Your task to perform on an android device: Open the stopwatch Image 0: 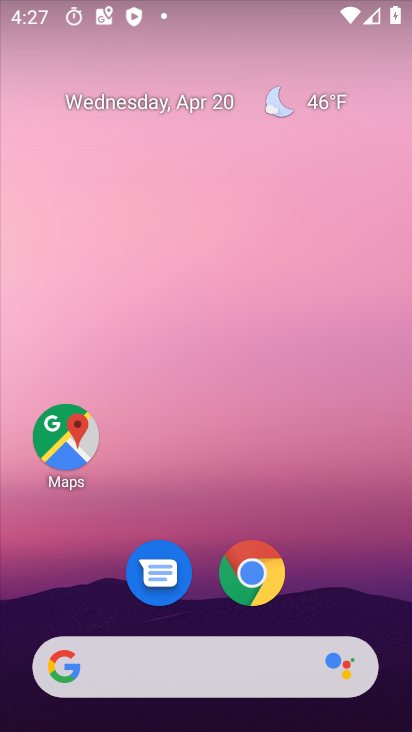
Step 0: drag from (300, 316) to (286, 222)
Your task to perform on an android device: Open the stopwatch Image 1: 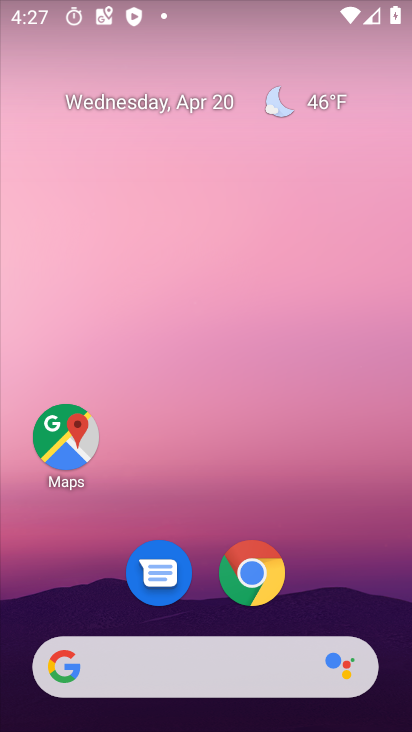
Step 1: drag from (356, 482) to (337, 256)
Your task to perform on an android device: Open the stopwatch Image 2: 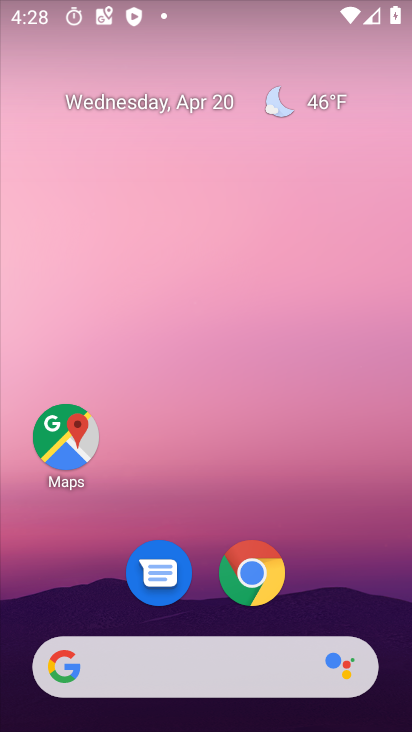
Step 2: drag from (336, 370) to (306, 162)
Your task to perform on an android device: Open the stopwatch Image 3: 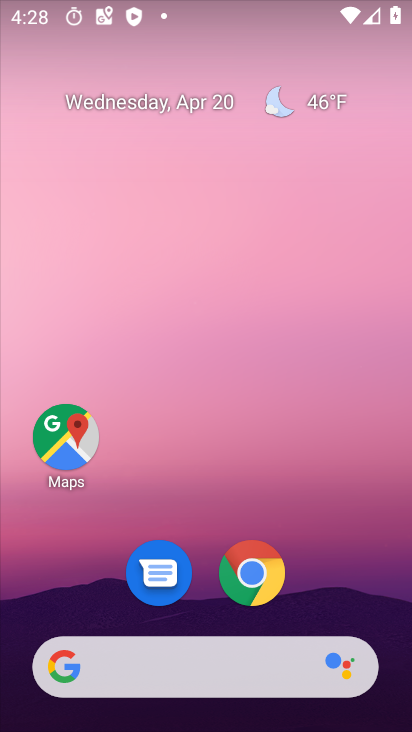
Step 3: drag from (362, 247) to (348, 97)
Your task to perform on an android device: Open the stopwatch Image 4: 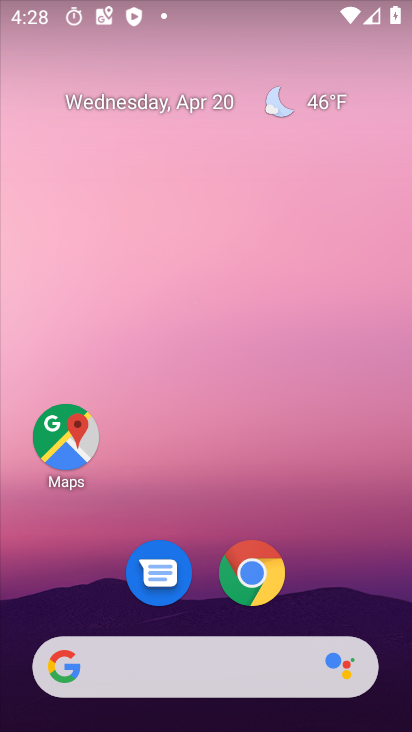
Step 4: drag from (376, 586) to (326, 126)
Your task to perform on an android device: Open the stopwatch Image 5: 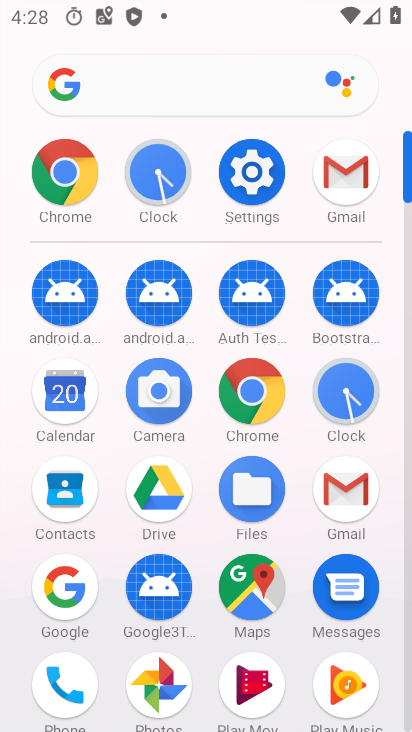
Step 5: click (162, 180)
Your task to perform on an android device: Open the stopwatch Image 6: 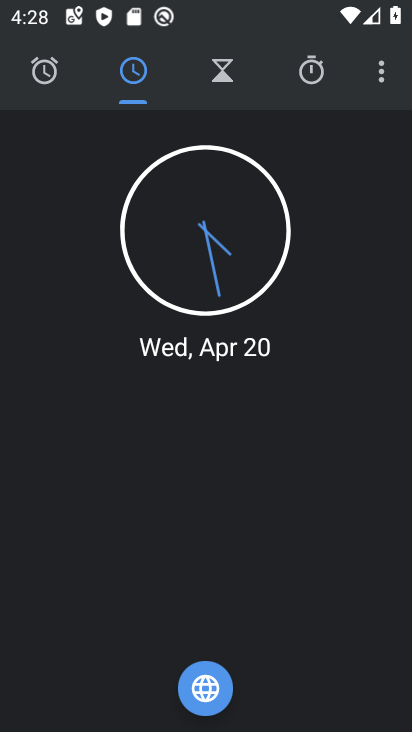
Step 6: click (310, 83)
Your task to perform on an android device: Open the stopwatch Image 7: 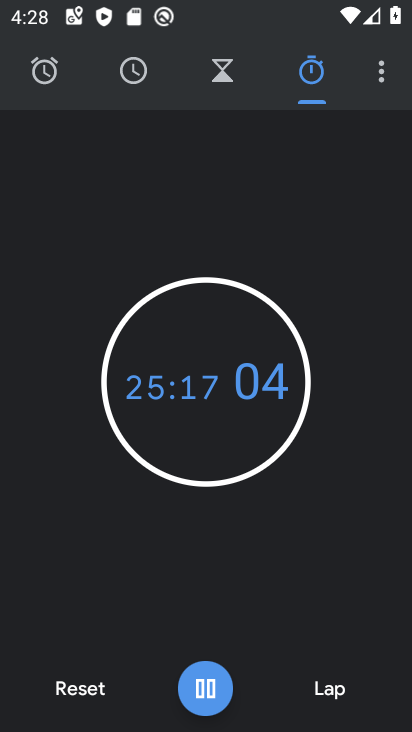
Step 7: click (72, 692)
Your task to perform on an android device: Open the stopwatch Image 8: 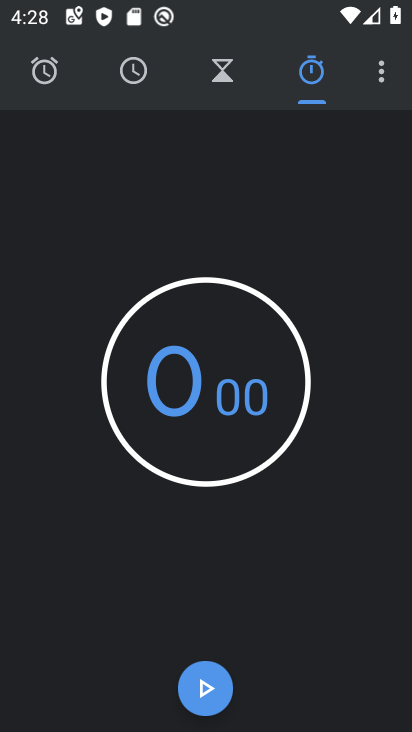
Step 8: task complete